Your task to perform on an android device: Open Android settings Image 0: 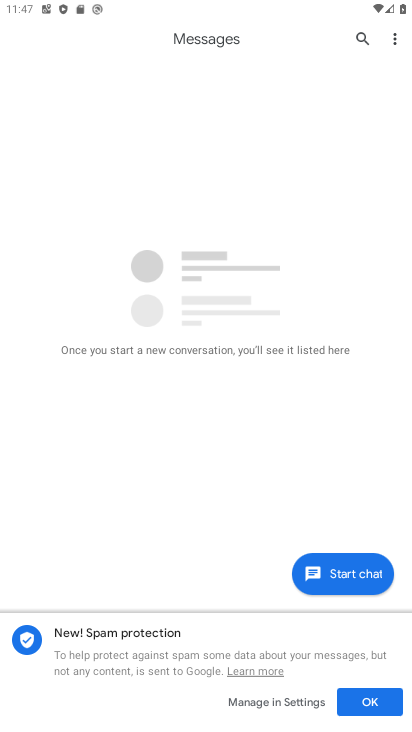
Step 0: press home button
Your task to perform on an android device: Open Android settings Image 1: 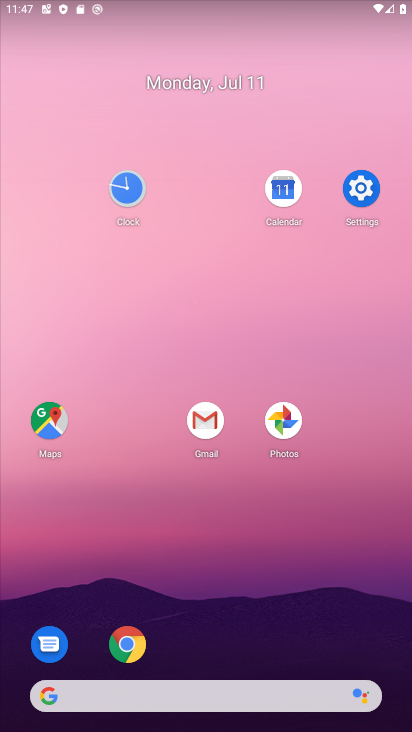
Step 1: click (360, 204)
Your task to perform on an android device: Open Android settings Image 2: 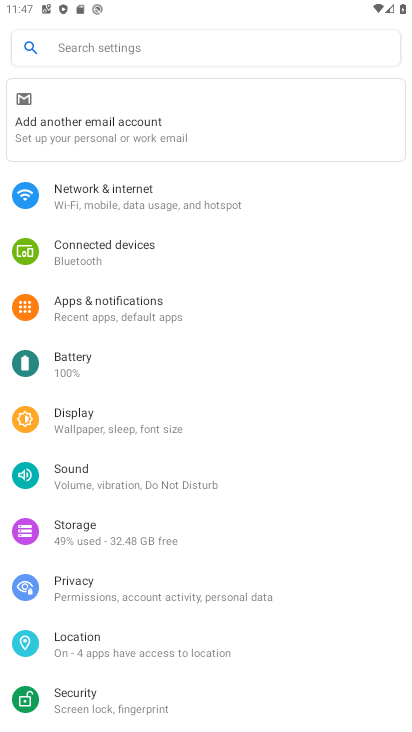
Step 2: task complete